Your task to perform on an android device: allow notifications from all sites in the chrome app Image 0: 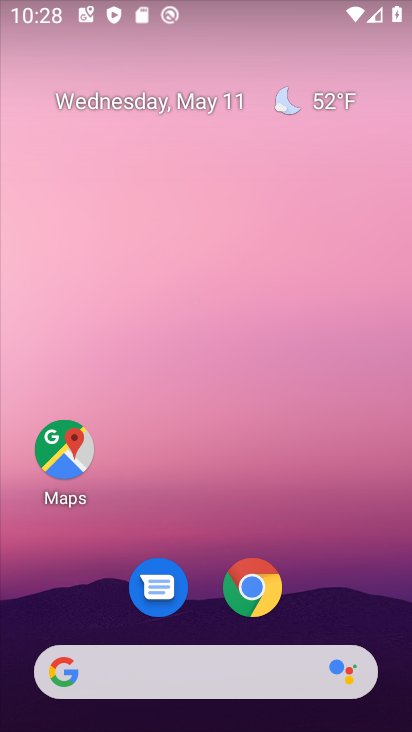
Step 0: drag from (247, 708) to (196, 233)
Your task to perform on an android device: allow notifications from all sites in the chrome app Image 1: 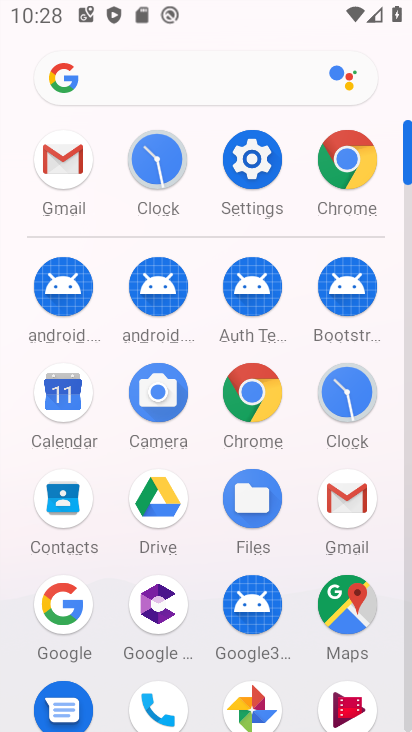
Step 1: click (245, 382)
Your task to perform on an android device: allow notifications from all sites in the chrome app Image 2: 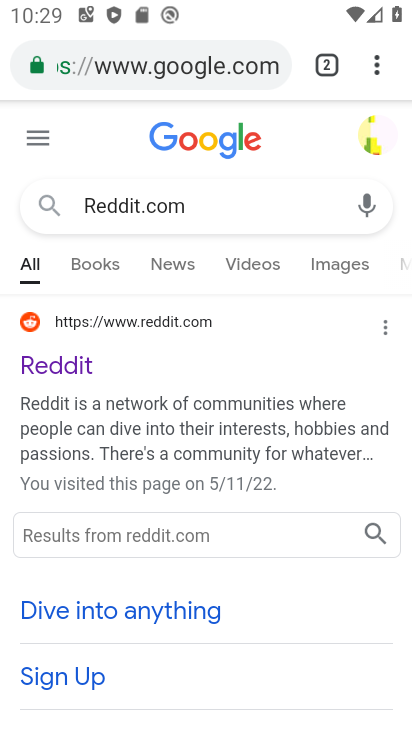
Step 2: click (369, 93)
Your task to perform on an android device: allow notifications from all sites in the chrome app Image 3: 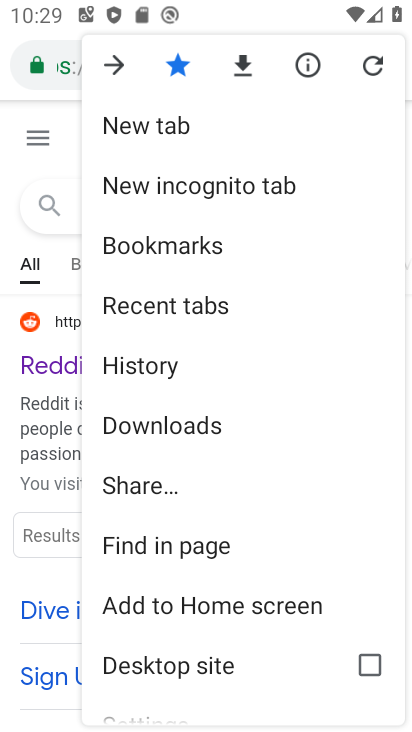
Step 3: click (151, 703)
Your task to perform on an android device: allow notifications from all sites in the chrome app Image 4: 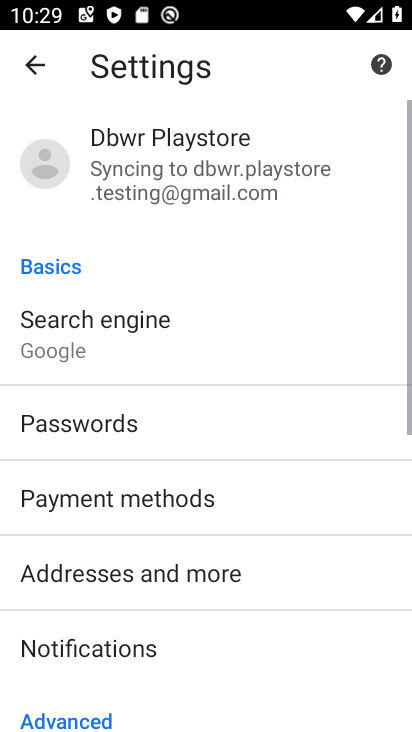
Step 4: drag from (186, 631) to (181, 291)
Your task to perform on an android device: allow notifications from all sites in the chrome app Image 5: 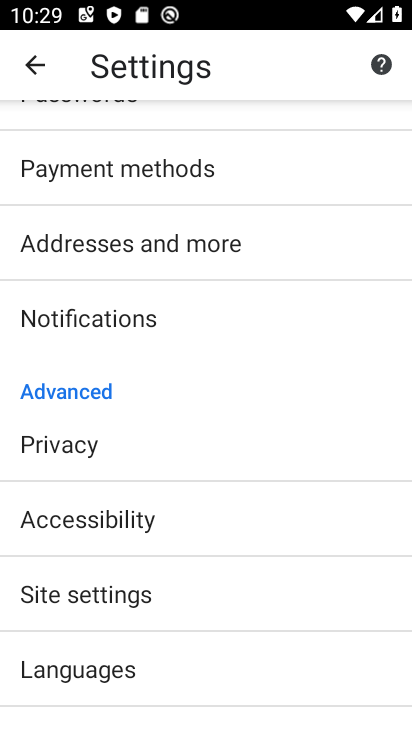
Step 5: click (111, 611)
Your task to perform on an android device: allow notifications from all sites in the chrome app Image 6: 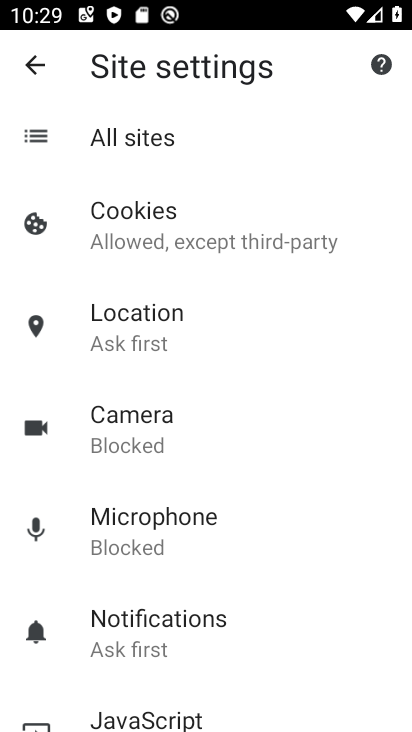
Step 6: click (193, 150)
Your task to perform on an android device: allow notifications from all sites in the chrome app Image 7: 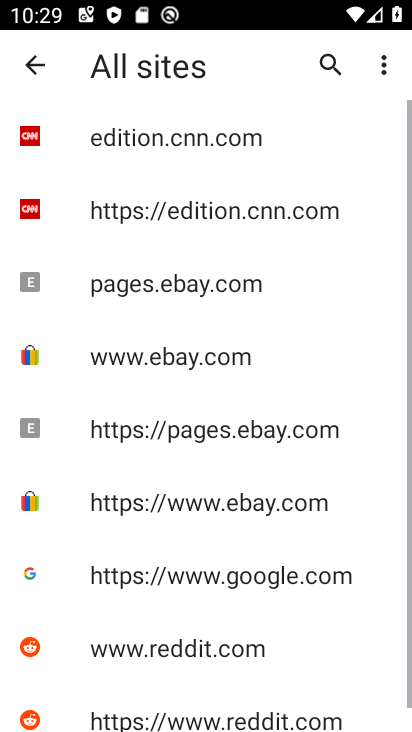
Step 7: click (34, 67)
Your task to perform on an android device: allow notifications from all sites in the chrome app Image 8: 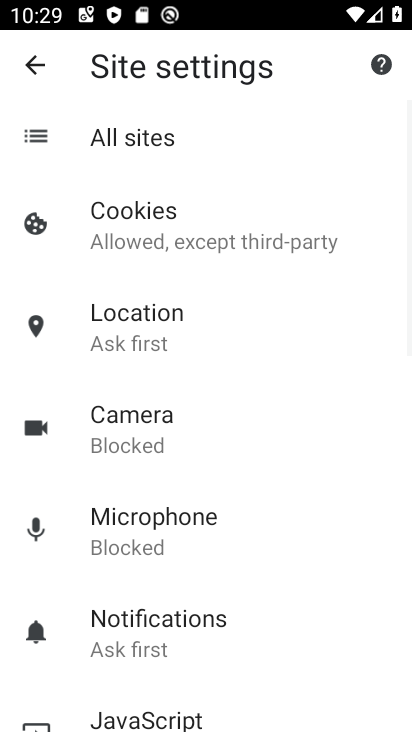
Step 8: click (171, 616)
Your task to perform on an android device: allow notifications from all sites in the chrome app Image 9: 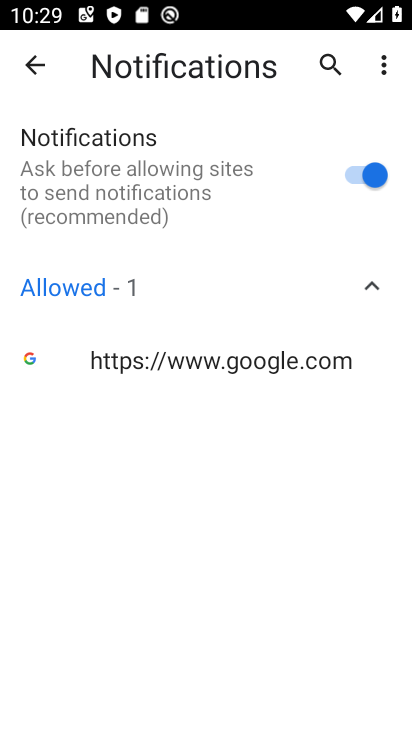
Step 9: click (331, 165)
Your task to perform on an android device: allow notifications from all sites in the chrome app Image 10: 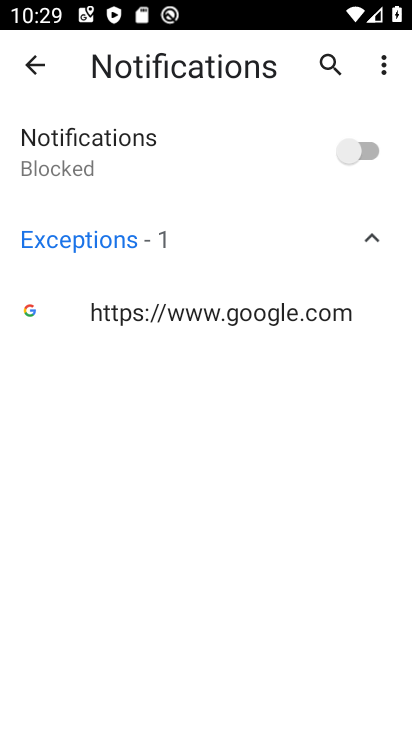
Step 10: click (333, 167)
Your task to perform on an android device: allow notifications from all sites in the chrome app Image 11: 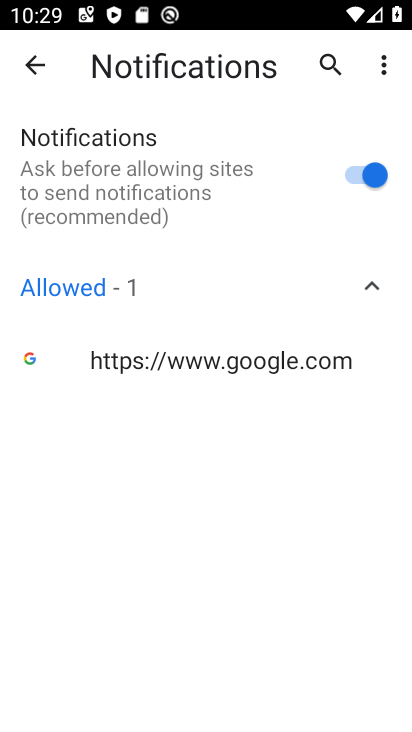
Step 11: task complete